Your task to perform on an android device: empty trash in the gmail app Image 0: 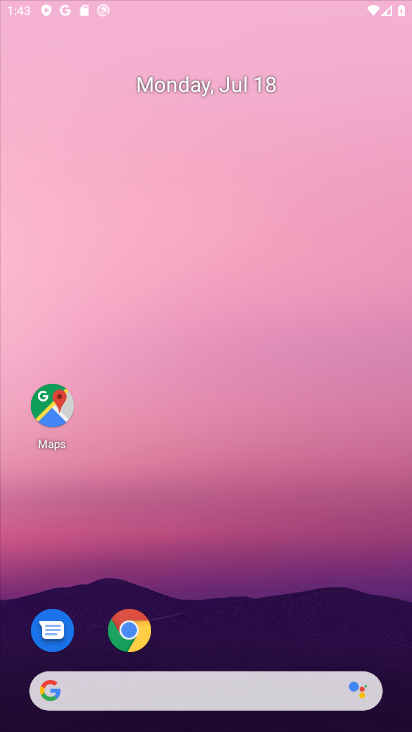
Step 0: drag from (231, 664) to (269, 54)
Your task to perform on an android device: empty trash in the gmail app Image 1: 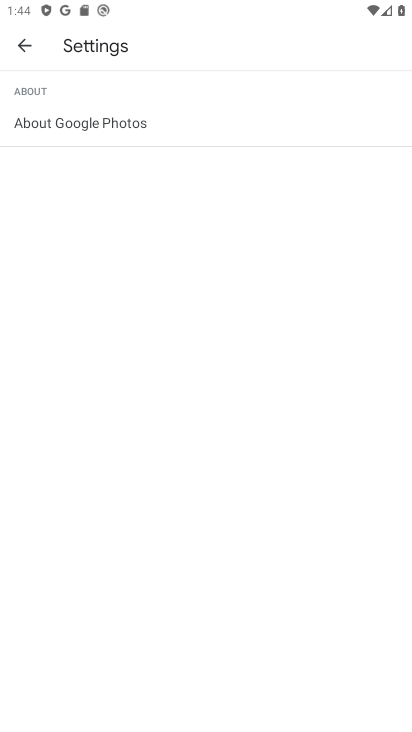
Step 1: press home button
Your task to perform on an android device: empty trash in the gmail app Image 2: 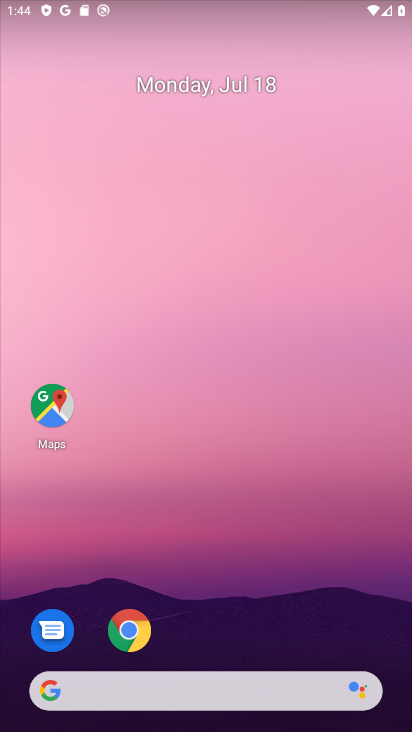
Step 2: drag from (225, 680) to (288, 28)
Your task to perform on an android device: empty trash in the gmail app Image 3: 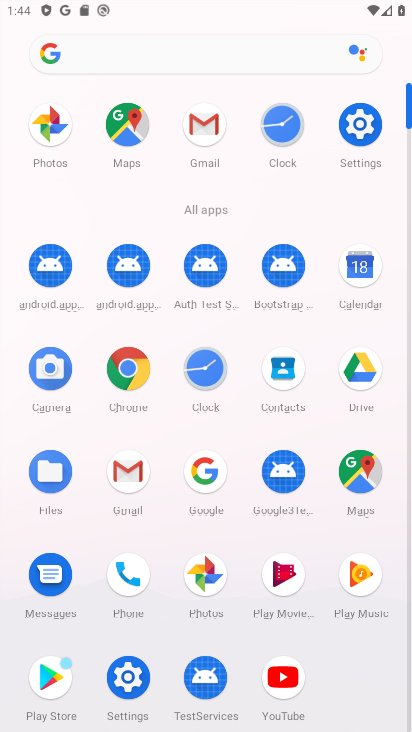
Step 3: click (124, 459)
Your task to perform on an android device: empty trash in the gmail app Image 4: 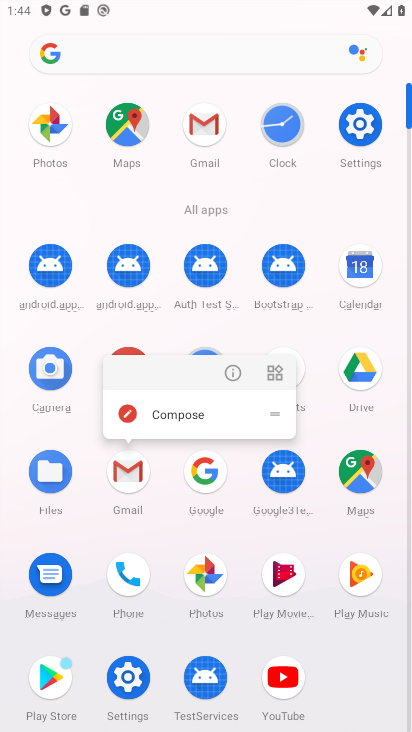
Step 4: click (125, 473)
Your task to perform on an android device: empty trash in the gmail app Image 5: 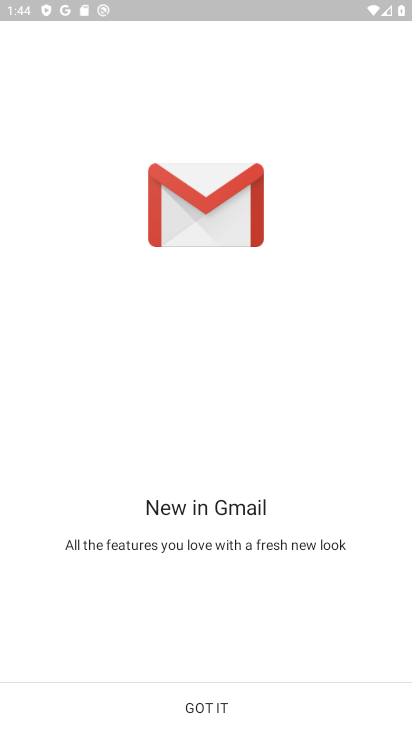
Step 5: click (228, 700)
Your task to perform on an android device: empty trash in the gmail app Image 6: 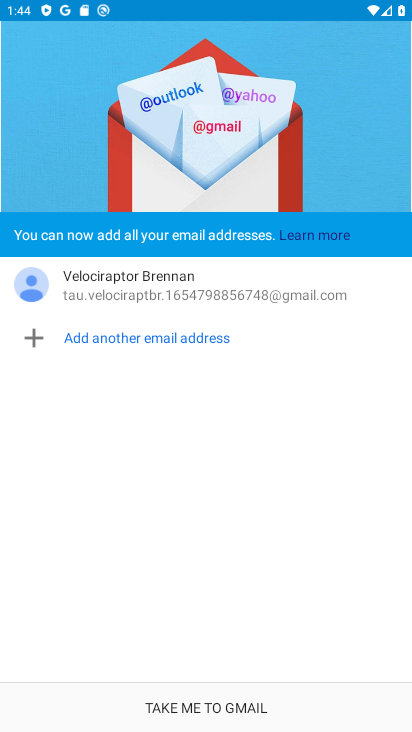
Step 6: click (228, 700)
Your task to perform on an android device: empty trash in the gmail app Image 7: 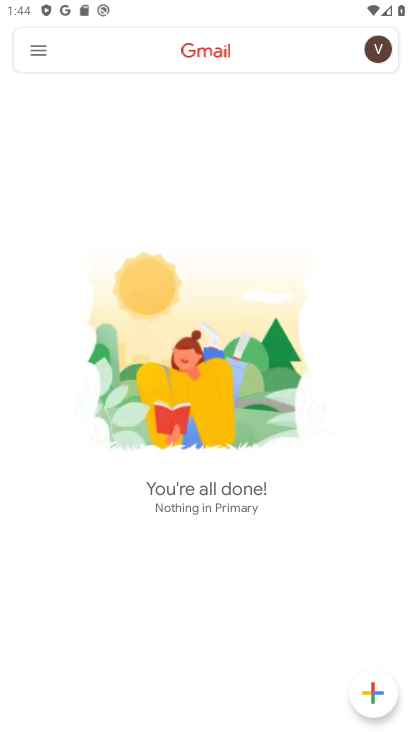
Step 7: click (49, 47)
Your task to perform on an android device: empty trash in the gmail app Image 8: 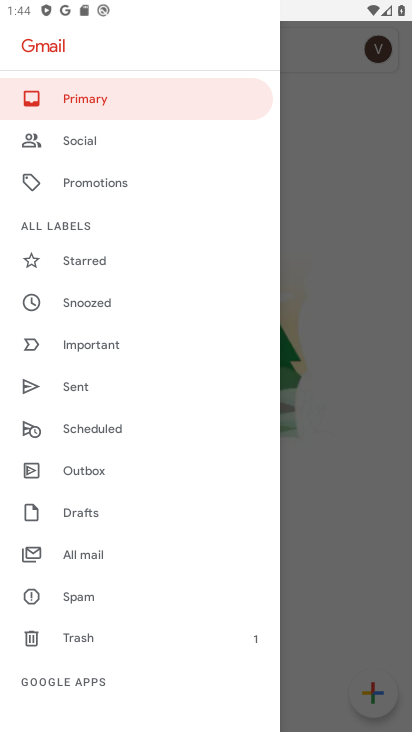
Step 8: click (109, 653)
Your task to perform on an android device: empty trash in the gmail app Image 9: 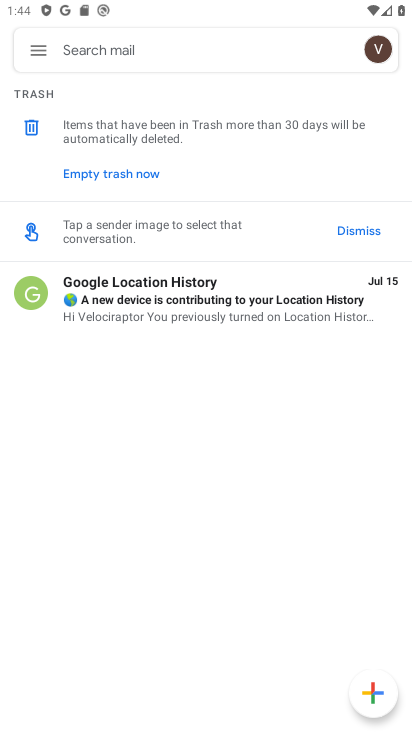
Step 9: click (105, 180)
Your task to perform on an android device: empty trash in the gmail app Image 10: 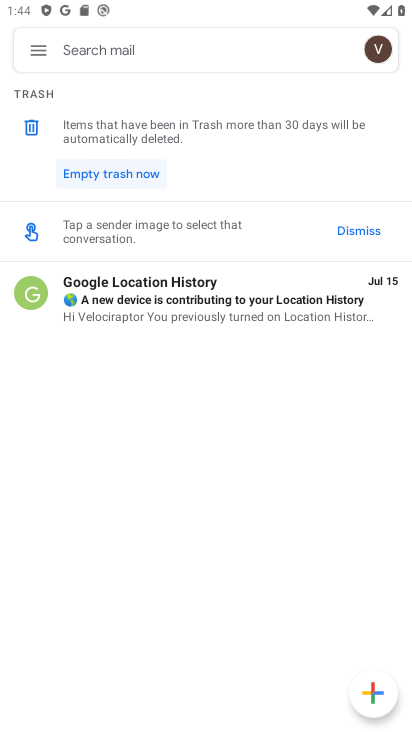
Step 10: click (107, 173)
Your task to perform on an android device: empty trash in the gmail app Image 11: 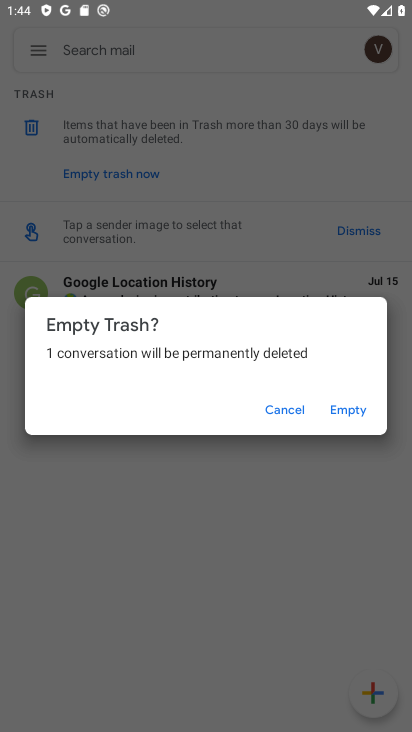
Step 11: click (356, 403)
Your task to perform on an android device: empty trash in the gmail app Image 12: 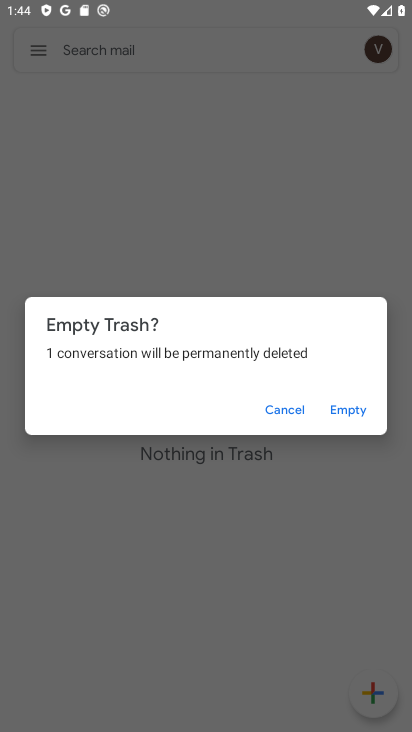
Step 12: task complete